Your task to perform on an android device: open sync settings in chrome Image 0: 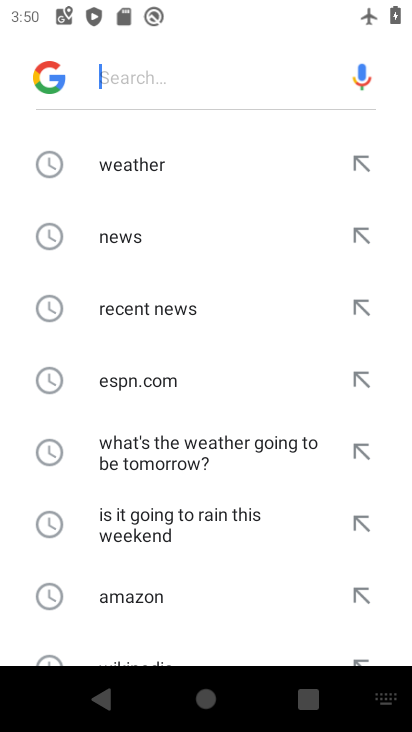
Step 0: press back button
Your task to perform on an android device: open sync settings in chrome Image 1: 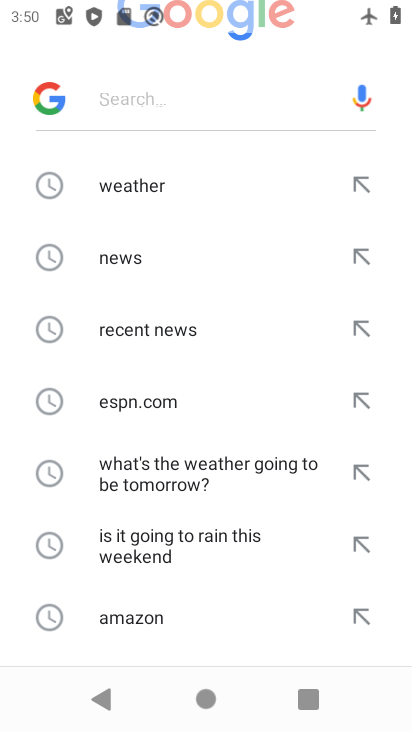
Step 1: press back button
Your task to perform on an android device: open sync settings in chrome Image 2: 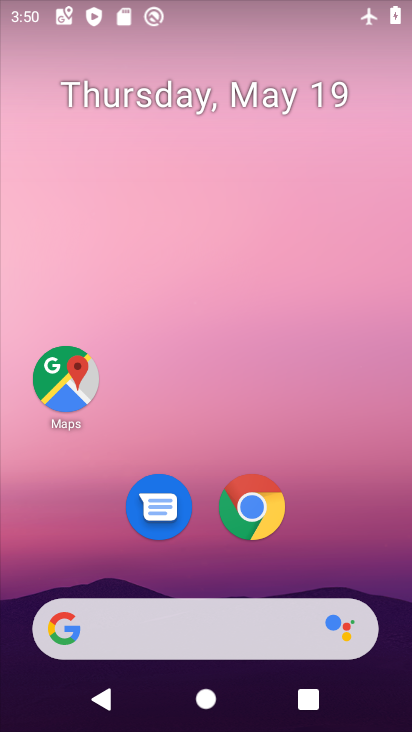
Step 2: click (266, 516)
Your task to perform on an android device: open sync settings in chrome Image 3: 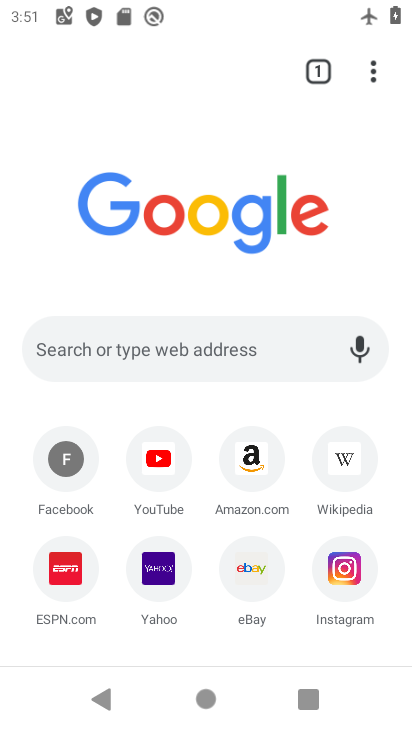
Step 3: click (370, 65)
Your task to perform on an android device: open sync settings in chrome Image 4: 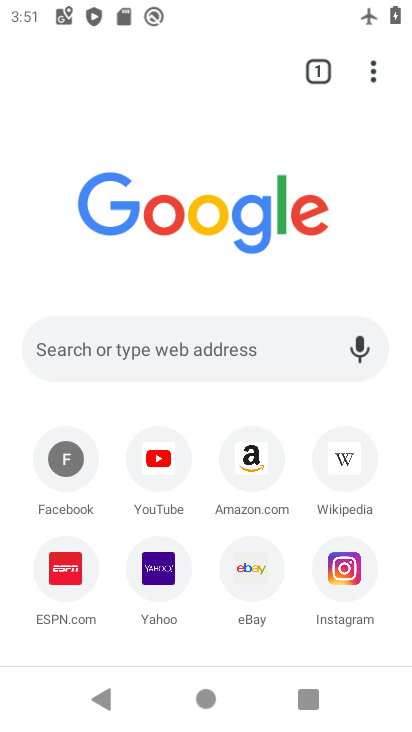
Step 4: click (372, 68)
Your task to perform on an android device: open sync settings in chrome Image 5: 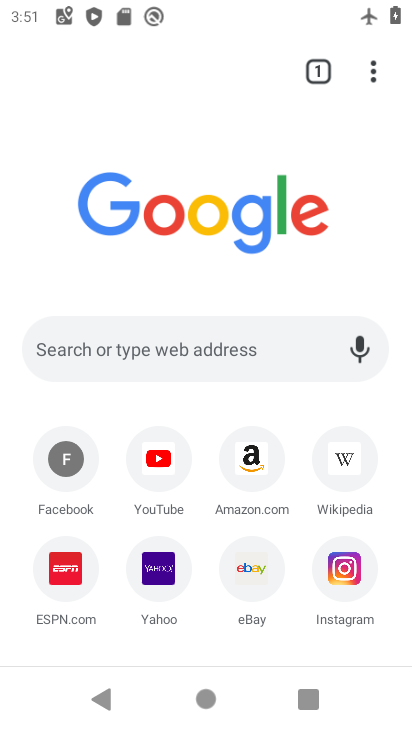
Step 5: click (371, 70)
Your task to perform on an android device: open sync settings in chrome Image 6: 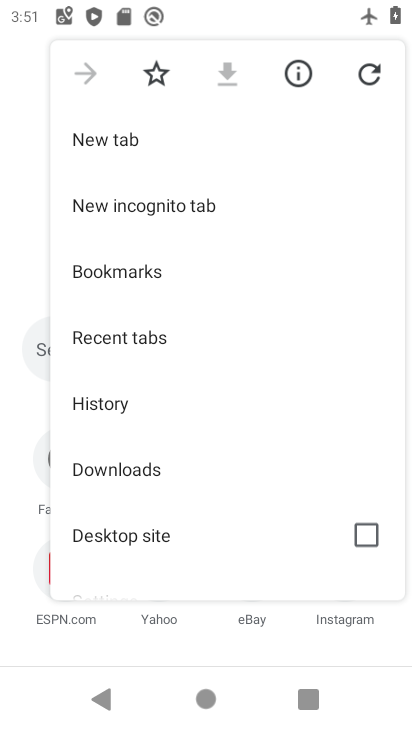
Step 6: drag from (212, 526) to (221, 379)
Your task to perform on an android device: open sync settings in chrome Image 7: 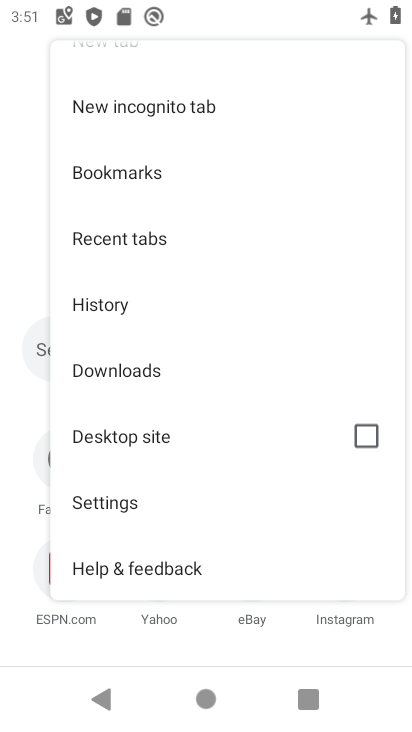
Step 7: drag from (230, 533) to (242, 355)
Your task to perform on an android device: open sync settings in chrome Image 8: 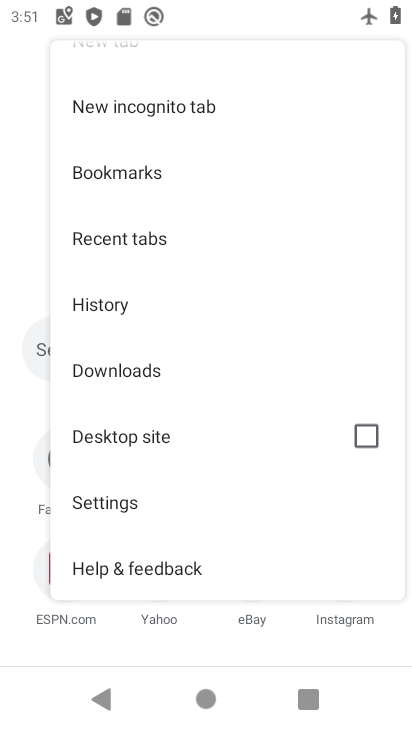
Step 8: click (119, 501)
Your task to perform on an android device: open sync settings in chrome Image 9: 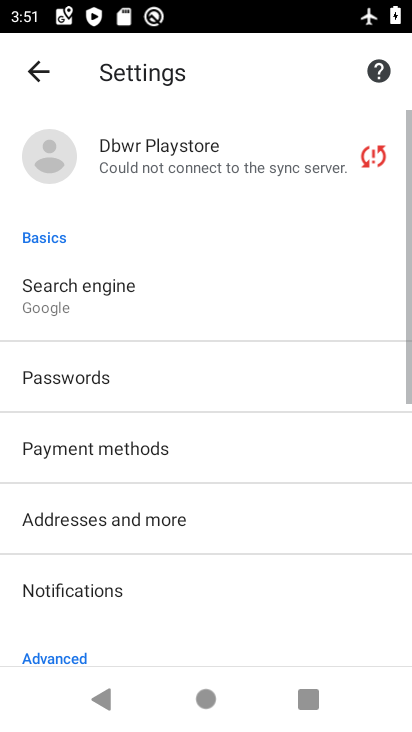
Step 9: drag from (274, 602) to (272, 441)
Your task to perform on an android device: open sync settings in chrome Image 10: 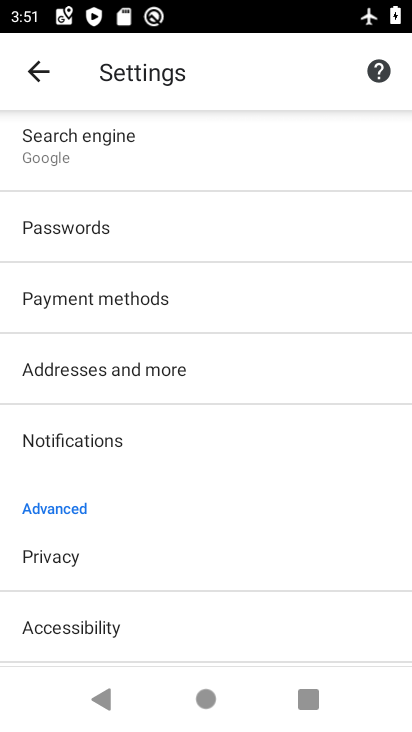
Step 10: drag from (277, 592) to (338, 146)
Your task to perform on an android device: open sync settings in chrome Image 11: 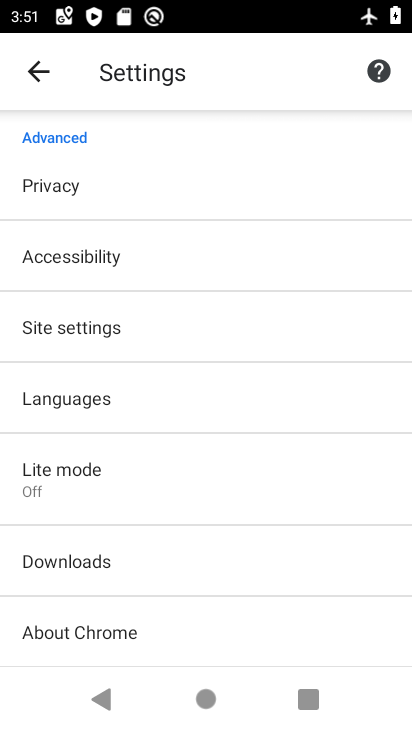
Step 11: drag from (275, 570) to (295, 326)
Your task to perform on an android device: open sync settings in chrome Image 12: 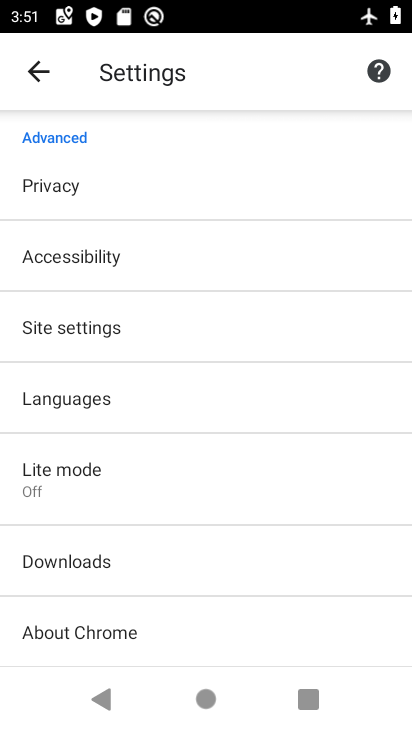
Step 12: drag from (224, 643) to (264, 396)
Your task to perform on an android device: open sync settings in chrome Image 13: 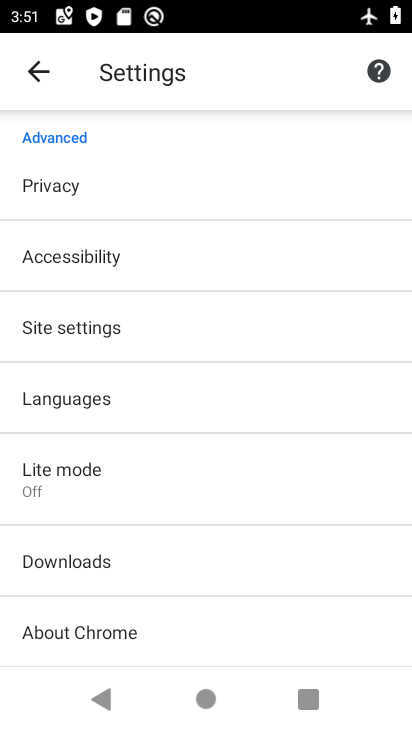
Step 13: click (80, 325)
Your task to perform on an android device: open sync settings in chrome Image 14: 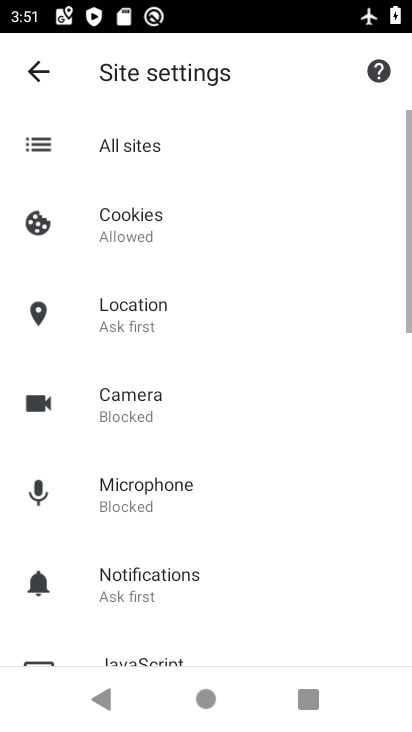
Step 14: drag from (256, 628) to (263, 396)
Your task to perform on an android device: open sync settings in chrome Image 15: 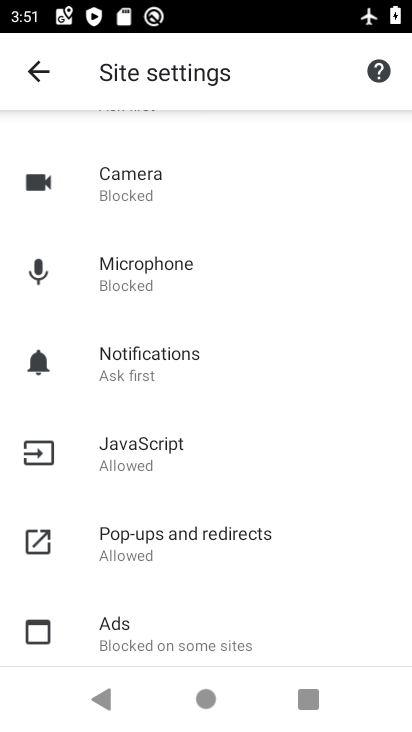
Step 15: drag from (295, 613) to (278, 266)
Your task to perform on an android device: open sync settings in chrome Image 16: 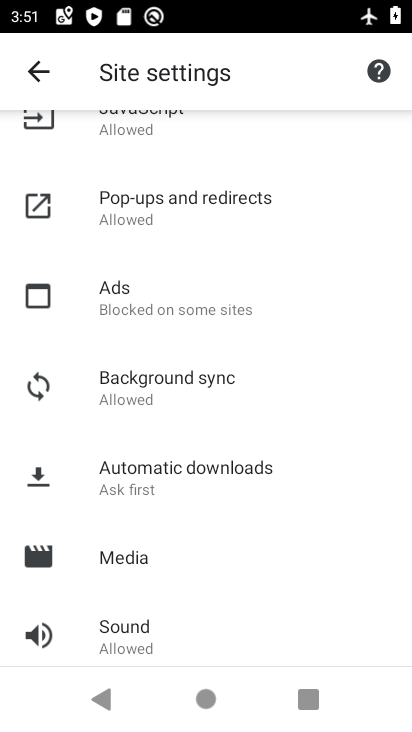
Step 16: drag from (256, 593) to (295, 194)
Your task to perform on an android device: open sync settings in chrome Image 17: 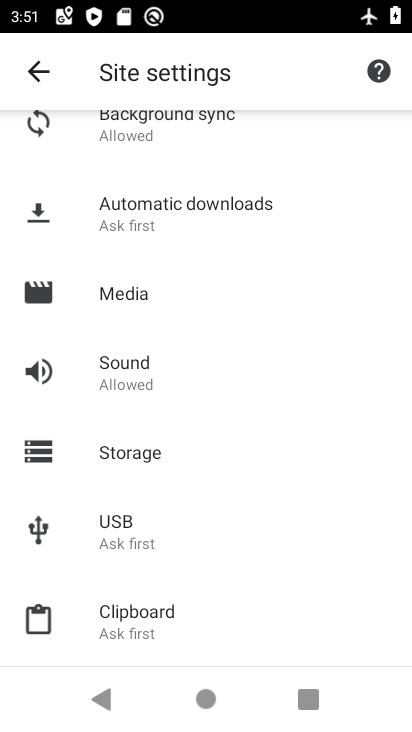
Step 17: click (147, 221)
Your task to perform on an android device: open sync settings in chrome Image 18: 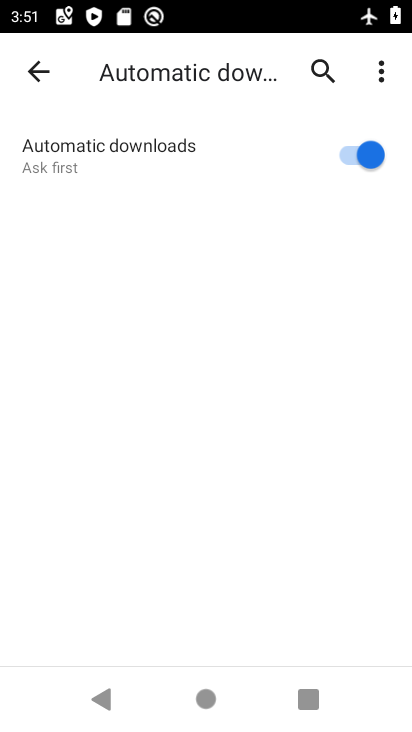
Step 18: click (44, 76)
Your task to perform on an android device: open sync settings in chrome Image 19: 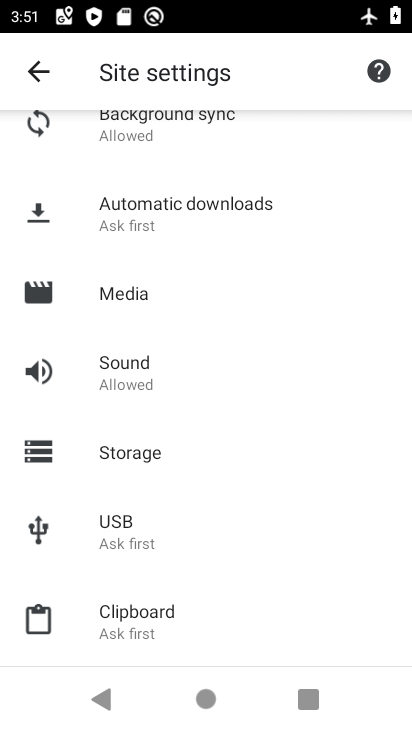
Step 19: click (149, 123)
Your task to perform on an android device: open sync settings in chrome Image 20: 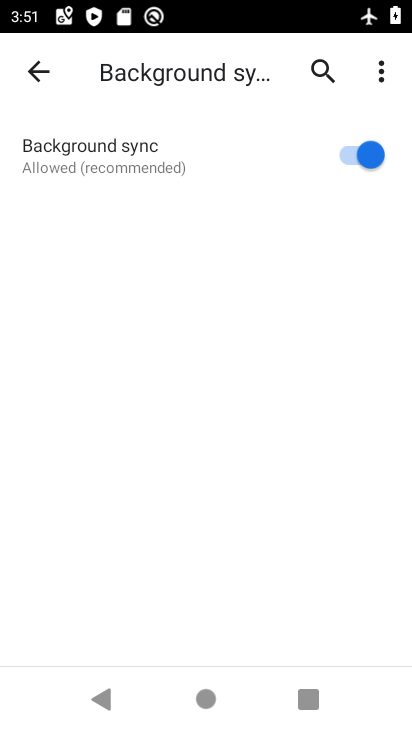
Step 20: task complete